Your task to perform on an android device: Open ESPN.com Image 0: 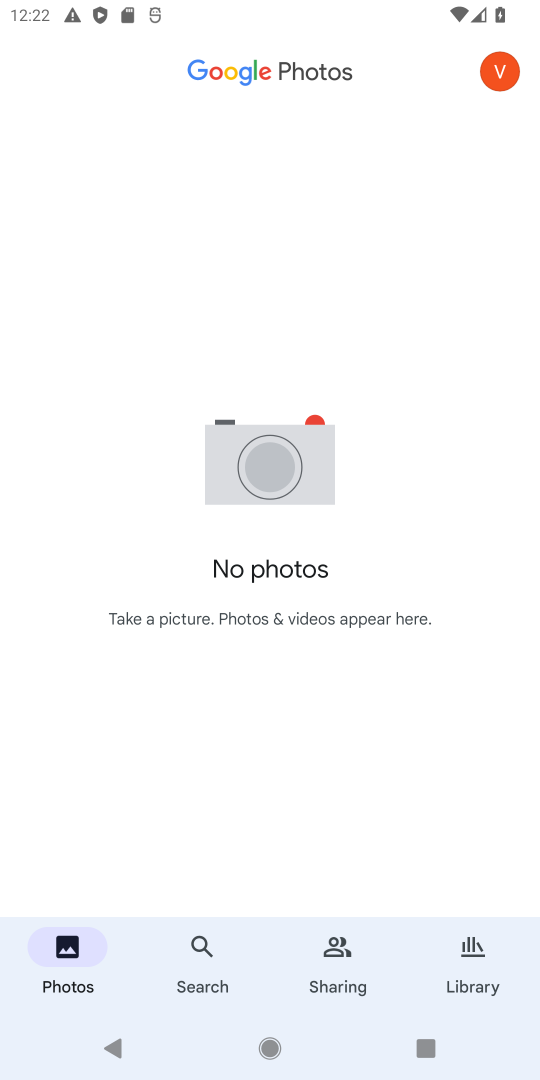
Step 0: press home button
Your task to perform on an android device: Open ESPN.com Image 1: 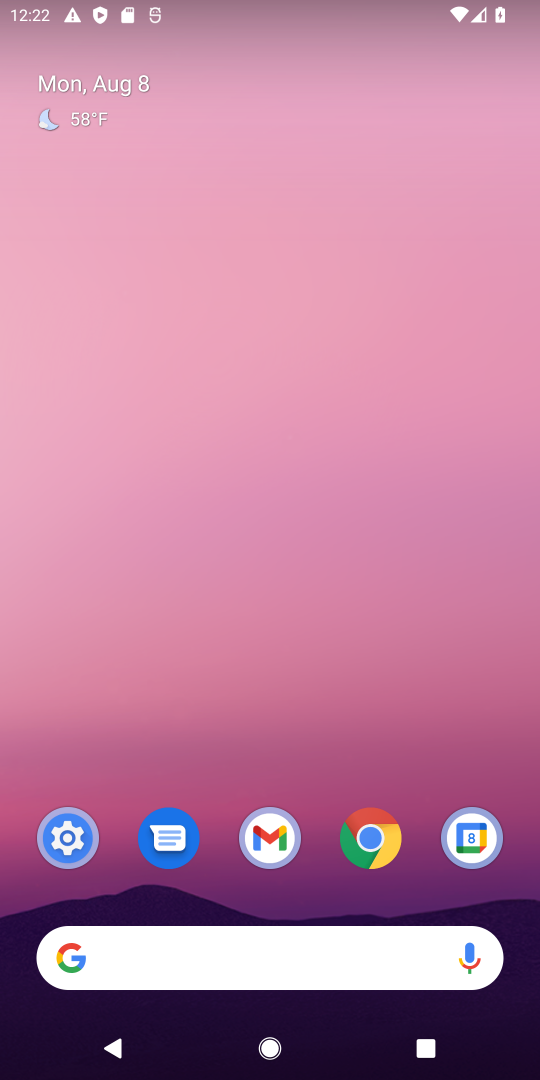
Step 1: click (72, 952)
Your task to perform on an android device: Open ESPN.com Image 2: 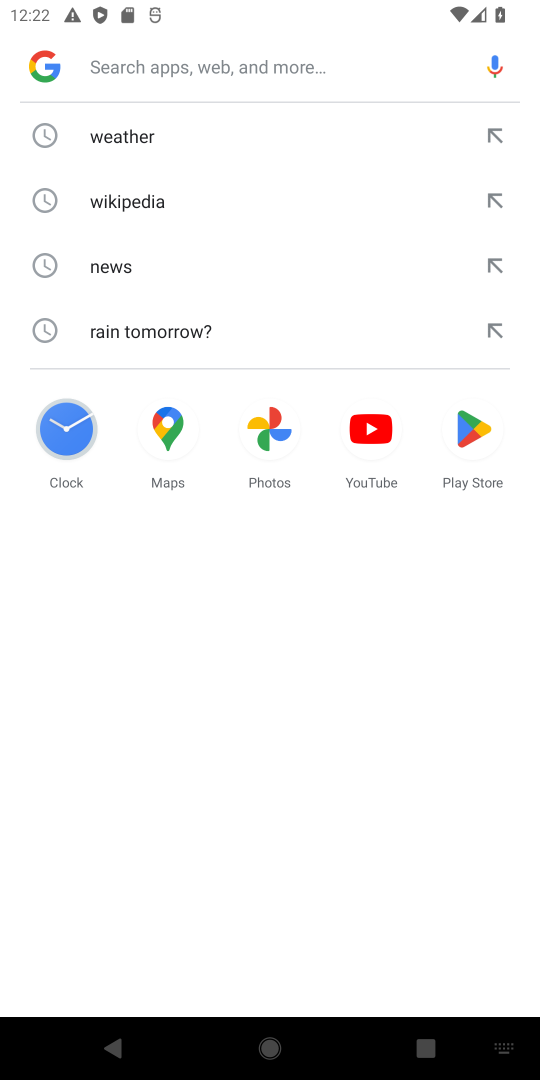
Step 2: type "ESPN.com"
Your task to perform on an android device: Open ESPN.com Image 3: 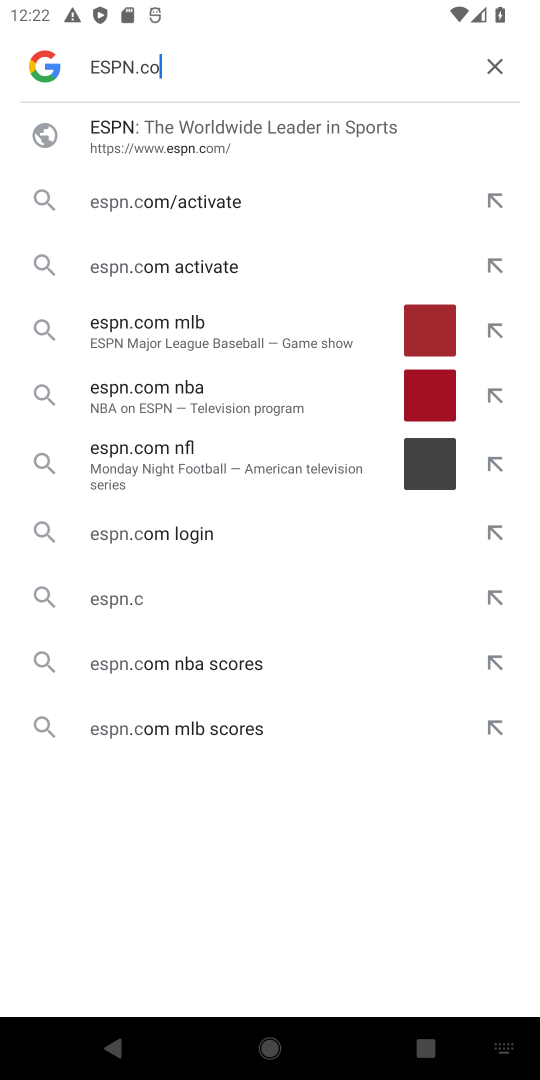
Step 3: press enter
Your task to perform on an android device: Open ESPN.com Image 4: 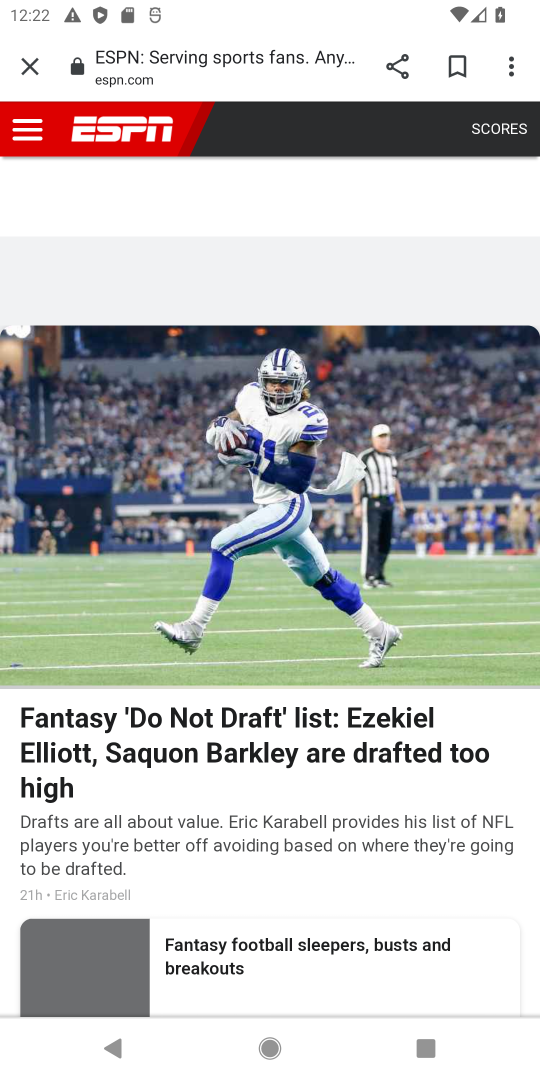
Step 4: task complete